Your task to perform on an android device: What is the news today? Image 0: 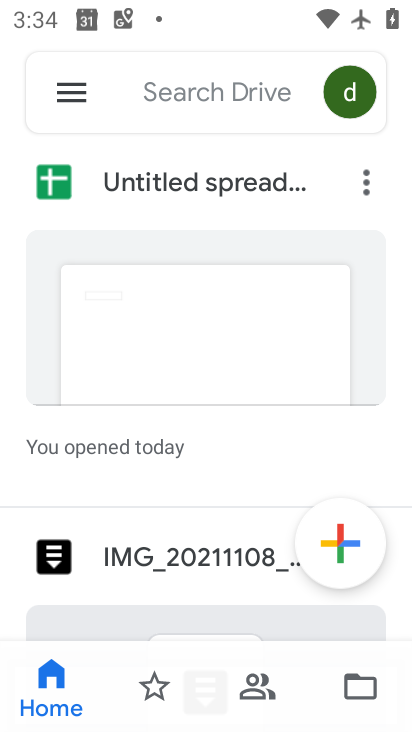
Step 0: press home button
Your task to perform on an android device: What is the news today? Image 1: 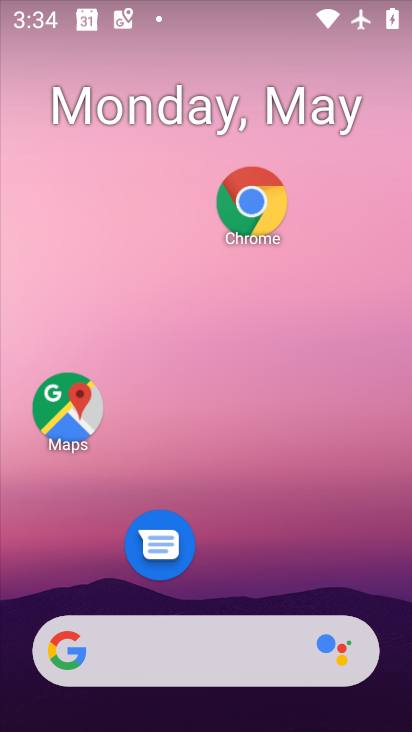
Step 1: drag from (236, 591) to (238, 168)
Your task to perform on an android device: What is the news today? Image 2: 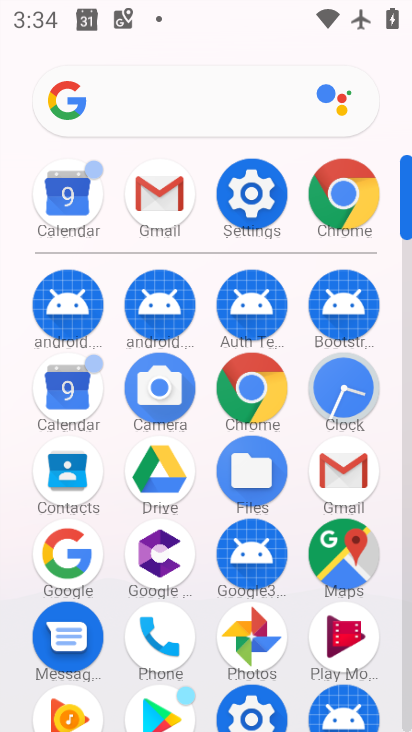
Step 2: drag from (215, 612) to (241, 421)
Your task to perform on an android device: What is the news today? Image 3: 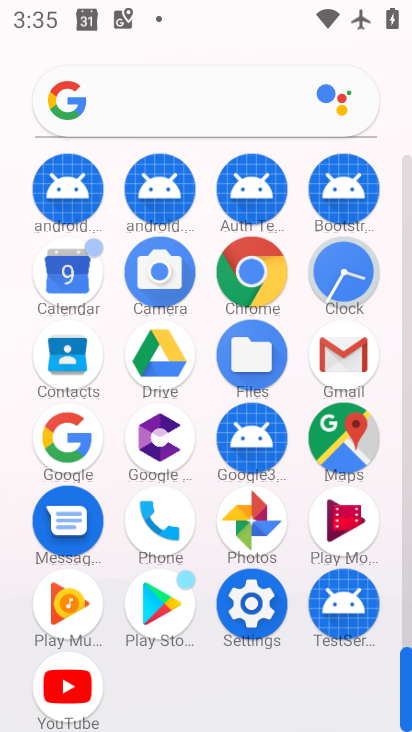
Step 3: click (56, 447)
Your task to perform on an android device: What is the news today? Image 4: 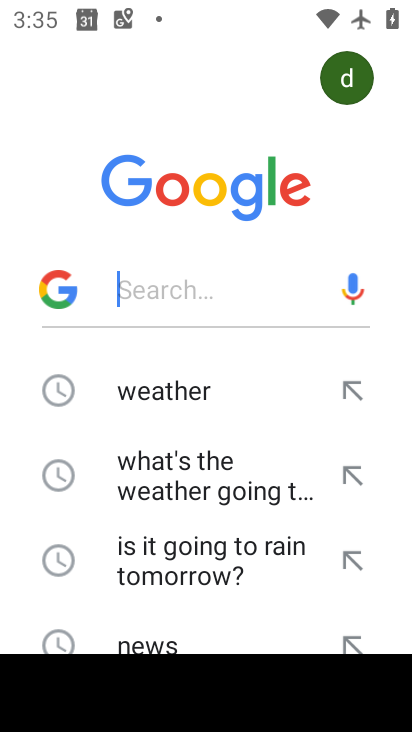
Step 4: type "news today"
Your task to perform on an android device: What is the news today? Image 5: 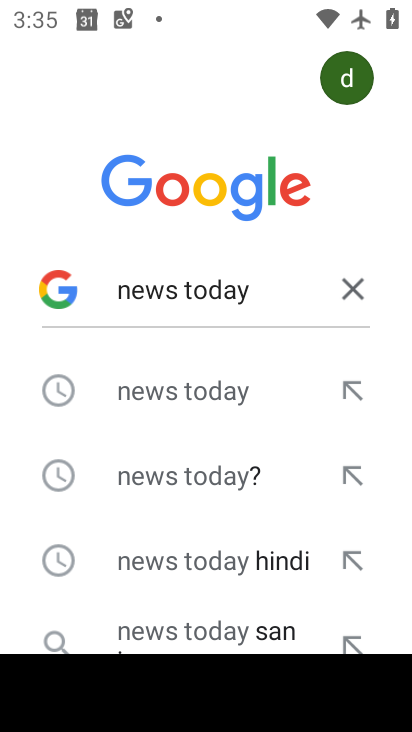
Step 5: click (197, 381)
Your task to perform on an android device: What is the news today? Image 6: 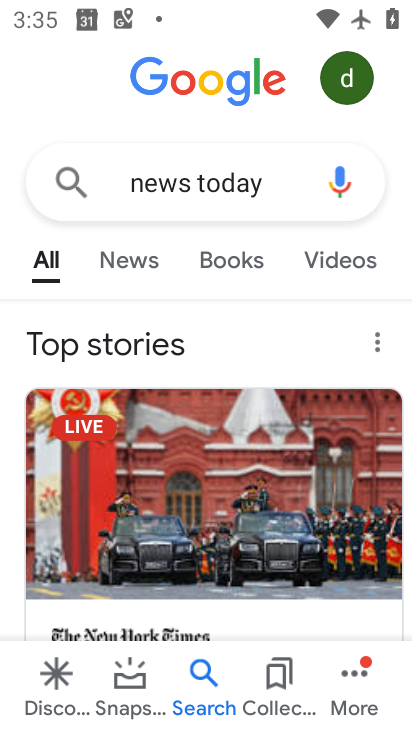
Step 6: click (122, 269)
Your task to perform on an android device: What is the news today? Image 7: 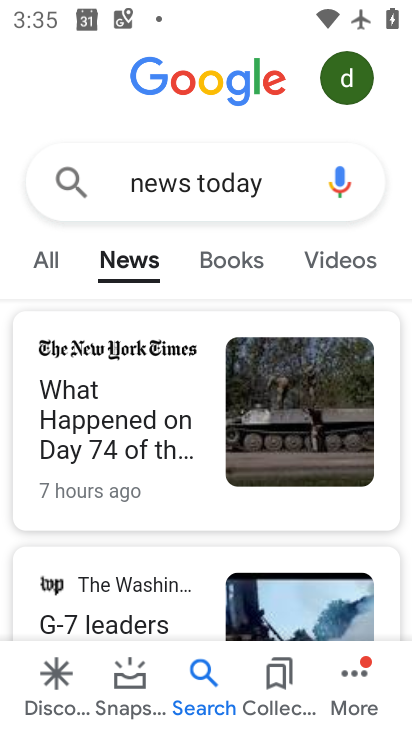
Step 7: task complete